Your task to perform on an android device: toggle location history Image 0: 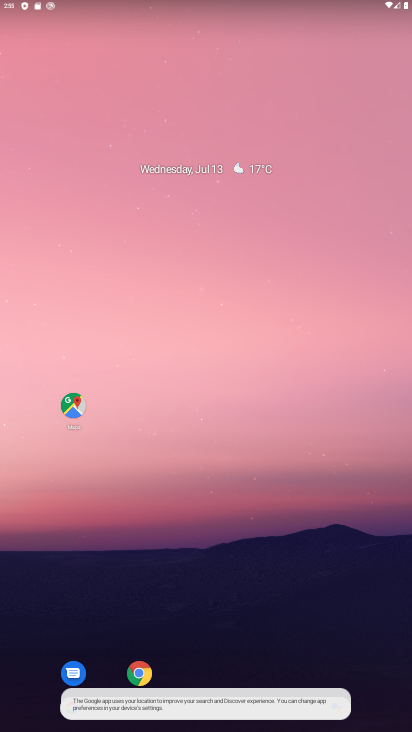
Step 0: drag from (195, 549) to (239, 92)
Your task to perform on an android device: toggle location history Image 1: 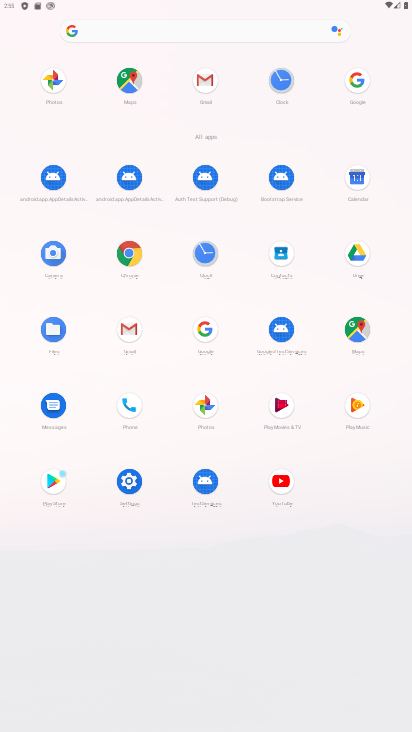
Step 1: click (122, 476)
Your task to perform on an android device: toggle location history Image 2: 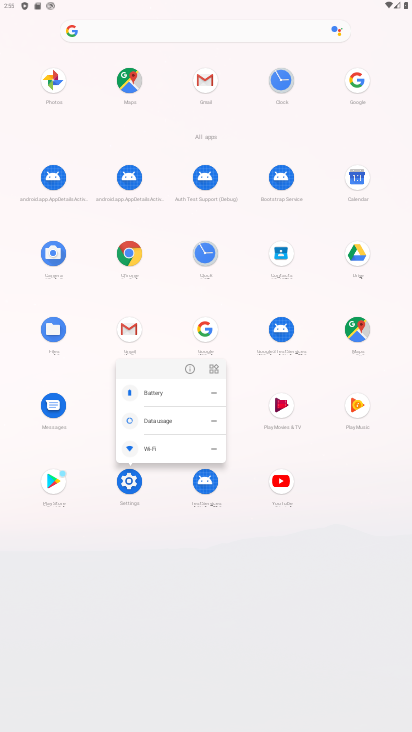
Step 2: click (122, 476)
Your task to perform on an android device: toggle location history Image 3: 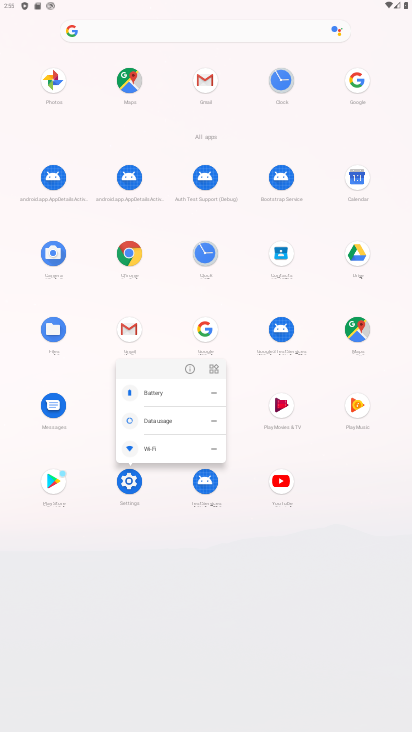
Step 3: click (122, 475)
Your task to perform on an android device: toggle location history Image 4: 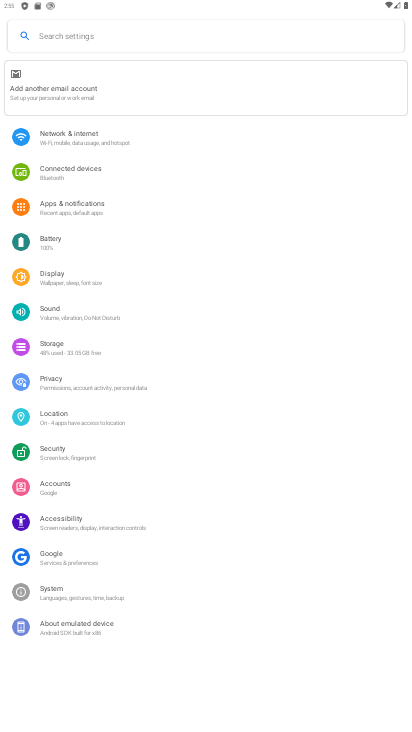
Step 4: click (78, 422)
Your task to perform on an android device: toggle location history Image 5: 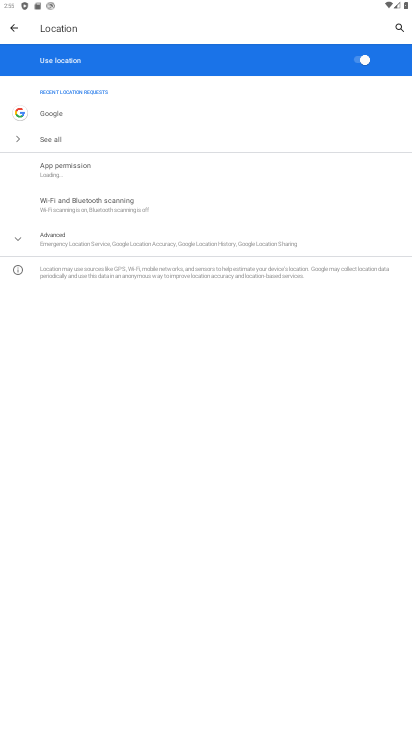
Step 5: click (81, 233)
Your task to perform on an android device: toggle location history Image 6: 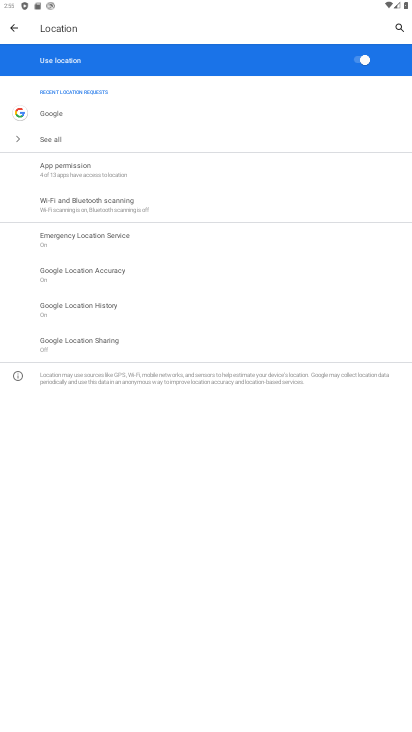
Step 6: click (89, 310)
Your task to perform on an android device: toggle location history Image 7: 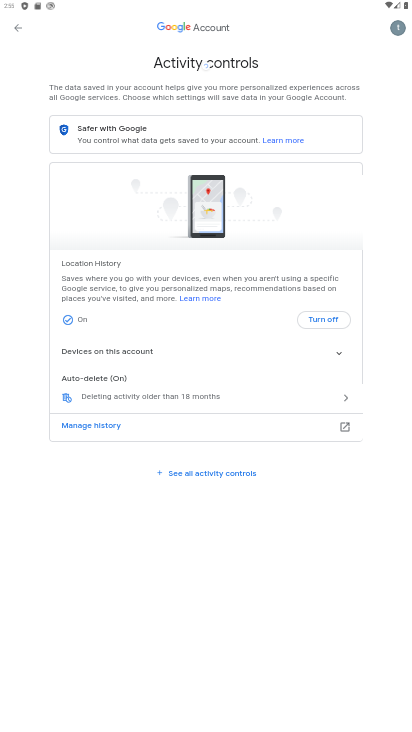
Step 7: click (332, 317)
Your task to perform on an android device: toggle location history Image 8: 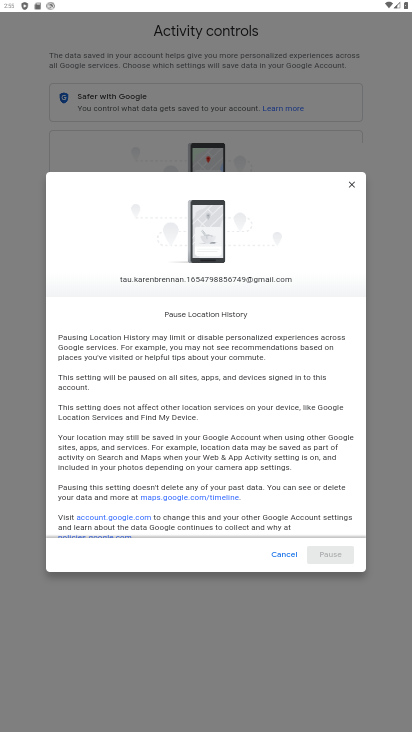
Step 8: drag from (273, 440) to (235, 174)
Your task to perform on an android device: toggle location history Image 9: 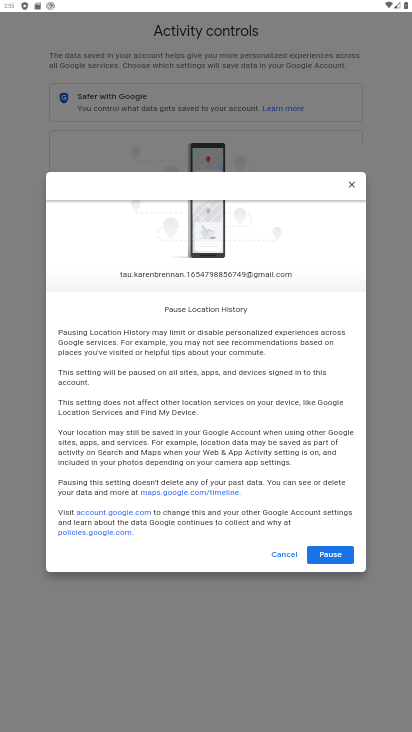
Step 9: click (332, 550)
Your task to perform on an android device: toggle location history Image 10: 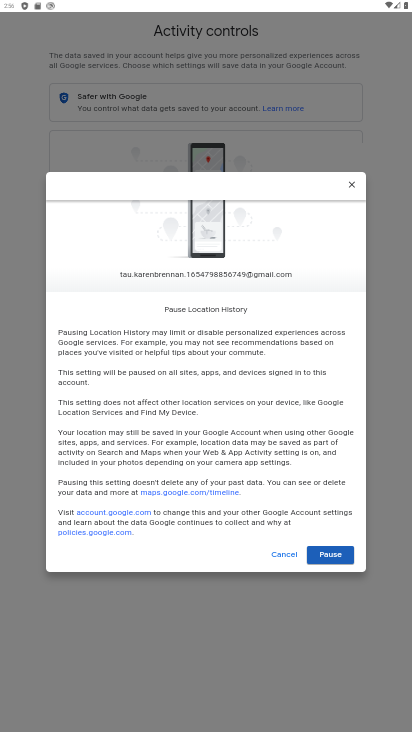
Step 10: click (333, 558)
Your task to perform on an android device: toggle location history Image 11: 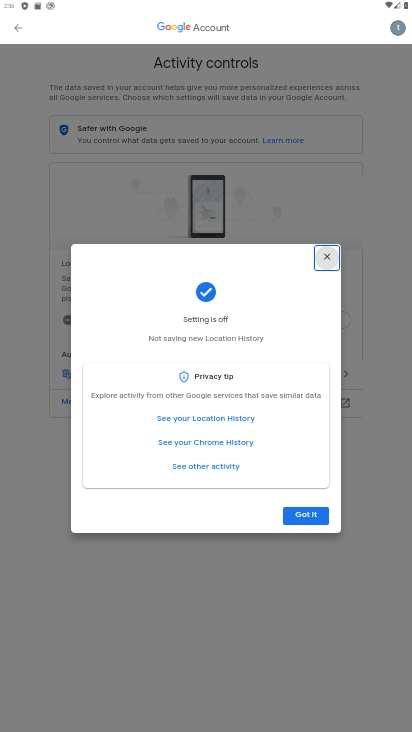
Step 11: click (314, 514)
Your task to perform on an android device: toggle location history Image 12: 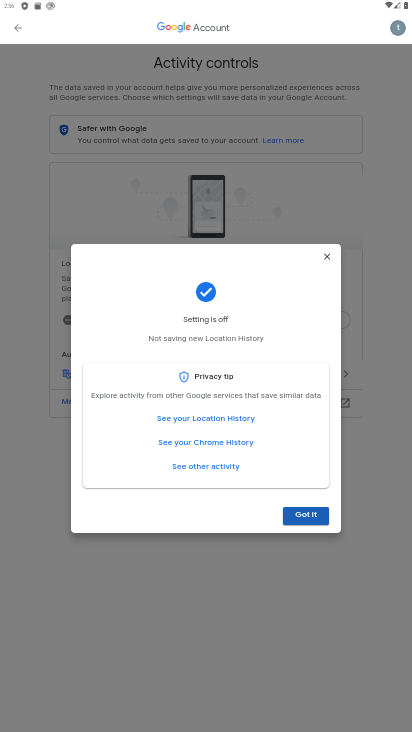
Step 12: click (305, 521)
Your task to perform on an android device: toggle location history Image 13: 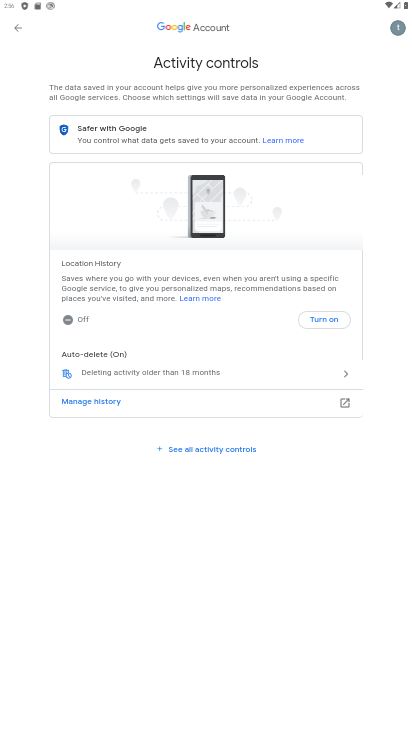
Step 13: task complete